Your task to perform on an android device: check data usage Image 0: 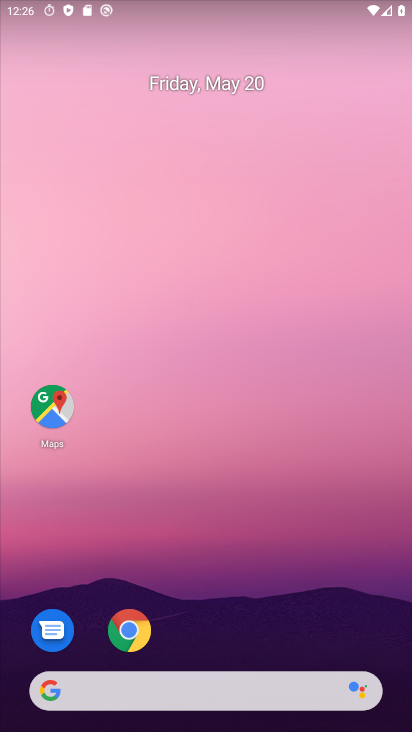
Step 0: drag from (234, 624) to (221, 69)
Your task to perform on an android device: check data usage Image 1: 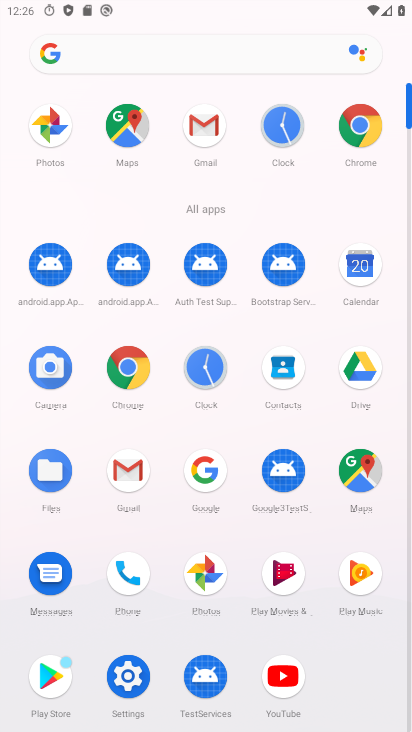
Step 1: click (128, 674)
Your task to perform on an android device: check data usage Image 2: 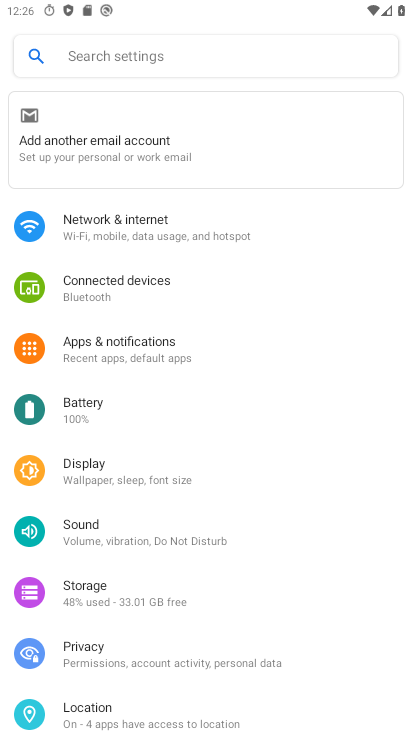
Step 2: click (111, 231)
Your task to perform on an android device: check data usage Image 3: 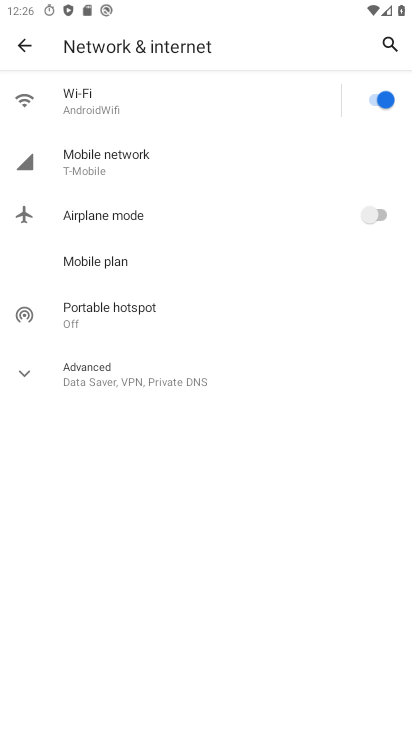
Step 3: click (93, 159)
Your task to perform on an android device: check data usage Image 4: 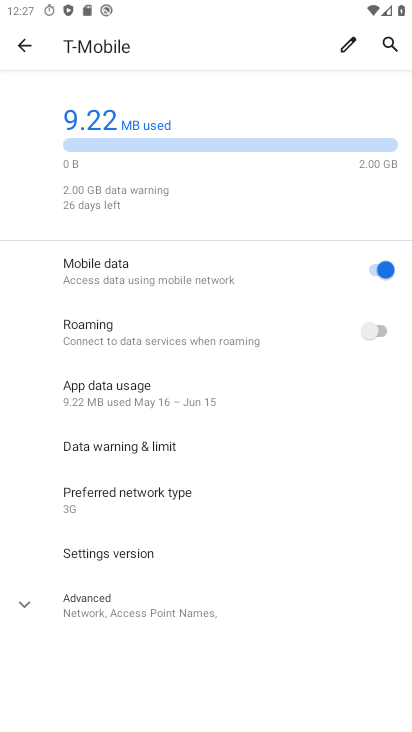
Step 4: task complete